Your task to perform on an android device: turn off airplane mode Image 0: 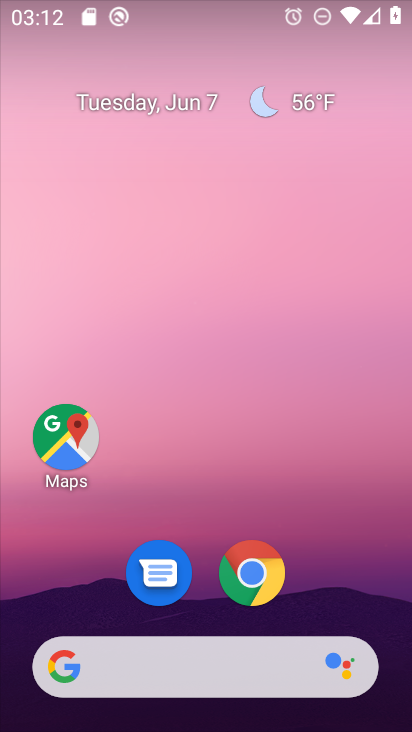
Step 0: drag from (341, 588) to (375, 1)
Your task to perform on an android device: turn off airplane mode Image 1: 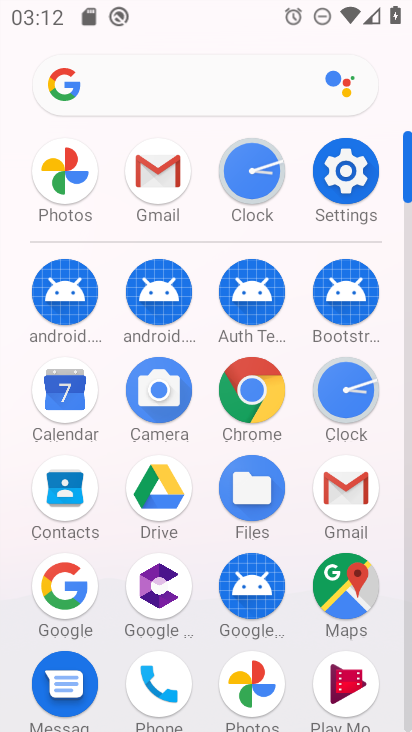
Step 1: click (333, 175)
Your task to perform on an android device: turn off airplane mode Image 2: 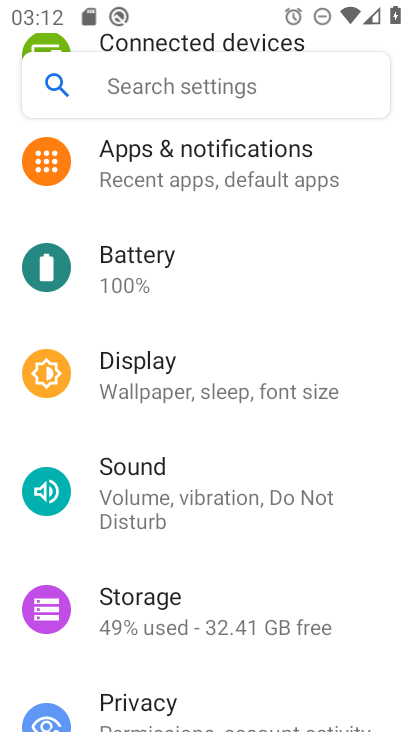
Step 2: drag from (199, 285) to (243, 601)
Your task to perform on an android device: turn off airplane mode Image 3: 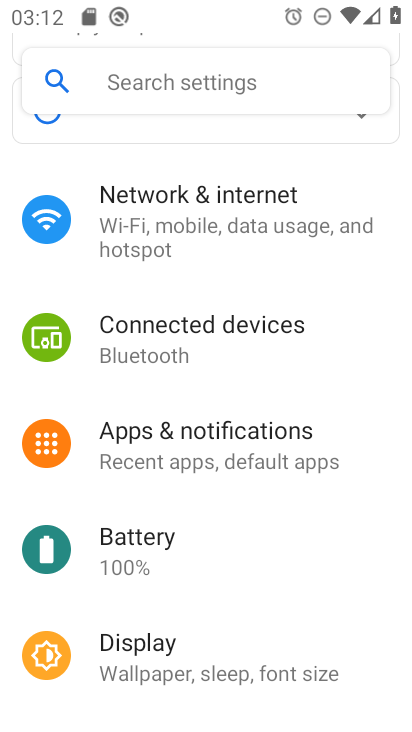
Step 3: click (198, 200)
Your task to perform on an android device: turn off airplane mode Image 4: 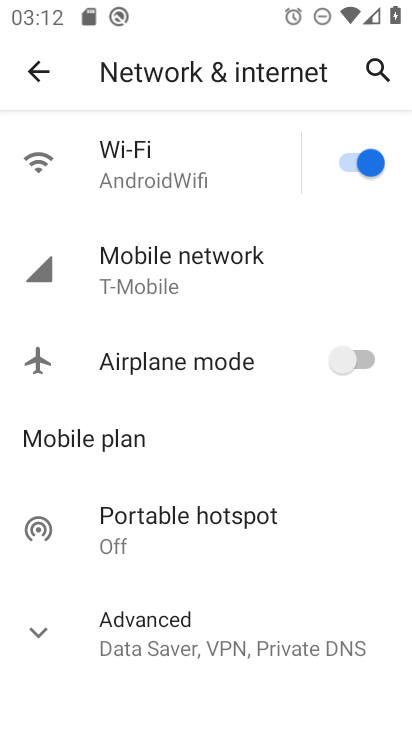
Step 4: task complete